Your task to perform on an android device: Empty the shopping cart on target. Search for logitech g pro on target, select the first entry, and add it to the cart. Image 0: 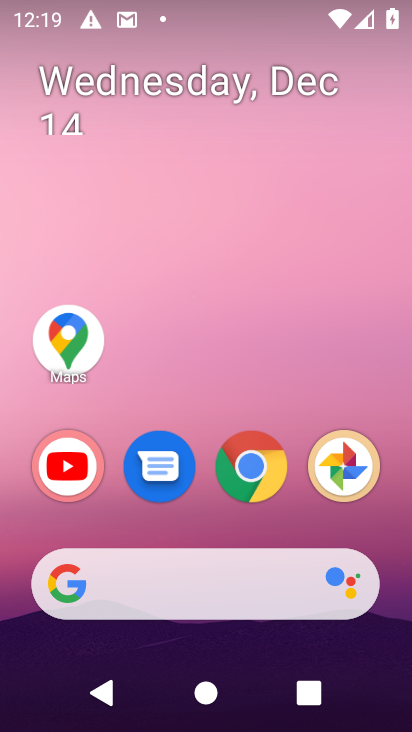
Step 0: drag from (212, 520) to (88, 49)
Your task to perform on an android device: Empty the shopping cart on target. Search for logitech g pro on target, select the first entry, and add it to the cart. Image 1: 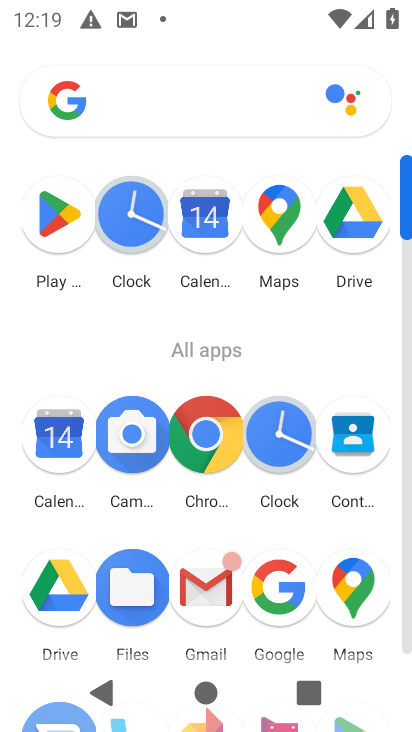
Step 1: click (287, 590)
Your task to perform on an android device: Empty the shopping cart on target. Search for logitech g pro on target, select the first entry, and add it to the cart. Image 2: 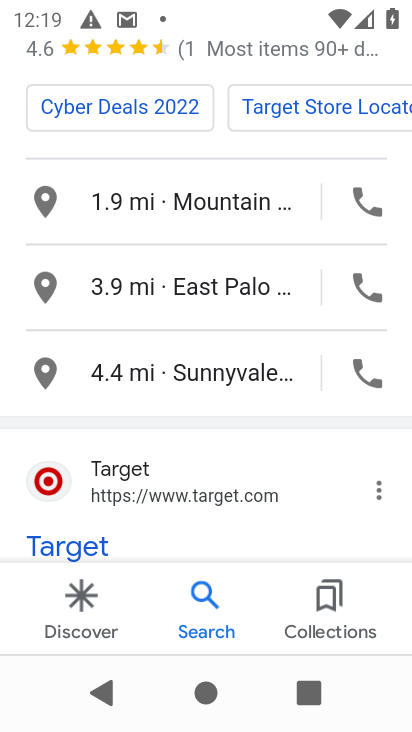
Step 2: drag from (174, 168) to (245, 497)
Your task to perform on an android device: Empty the shopping cart on target. Search for logitech g pro on target, select the first entry, and add it to the cart. Image 3: 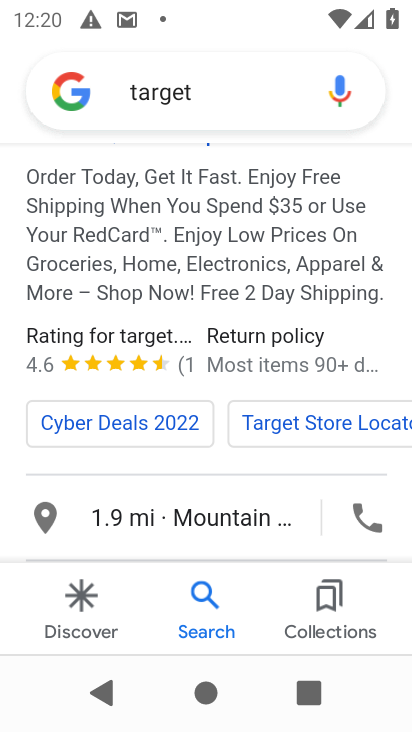
Step 3: drag from (245, 497) to (85, 2)
Your task to perform on an android device: Empty the shopping cart on target. Search for logitech g pro on target, select the first entry, and add it to the cart. Image 4: 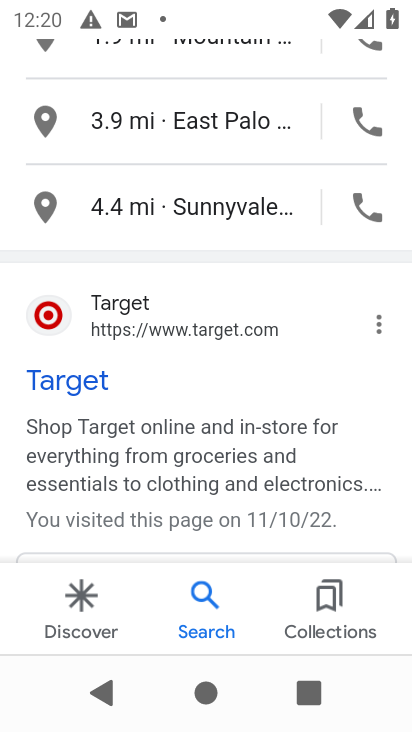
Step 4: click (137, 325)
Your task to perform on an android device: Empty the shopping cart on target. Search for logitech g pro on target, select the first entry, and add it to the cart. Image 5: 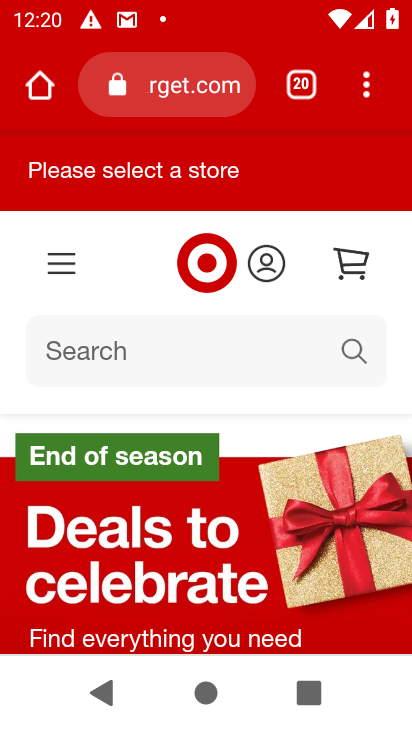
Step 5: click (343, 263)
Your task to perform on an android device: Empty the shopping cart on target. Search for logitech g pro on target, select the first entry, and add it to the cart. Image 6: 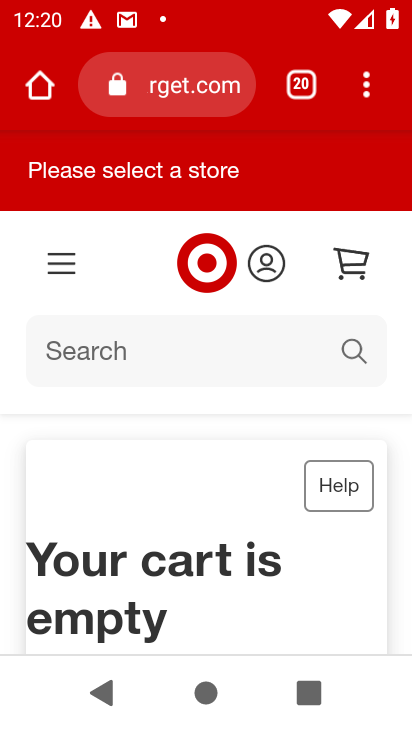
Step 6: task complete